Your task to perform on an android device: turn on location history Image 0: 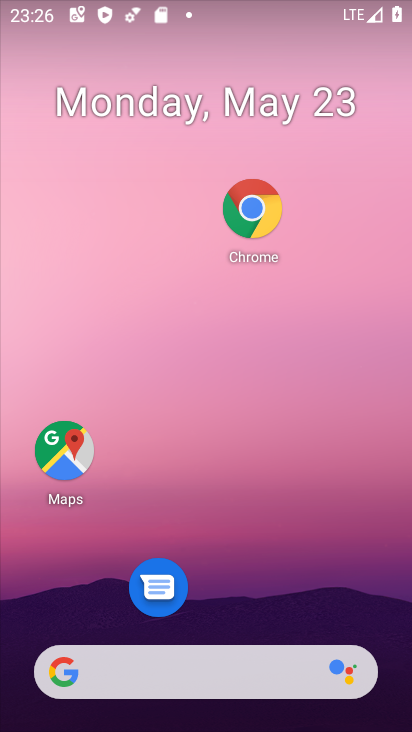
Step 0: drag from (308, 693) to (244, 214)
Your task to perform on an android device: turn on location history Image 1: 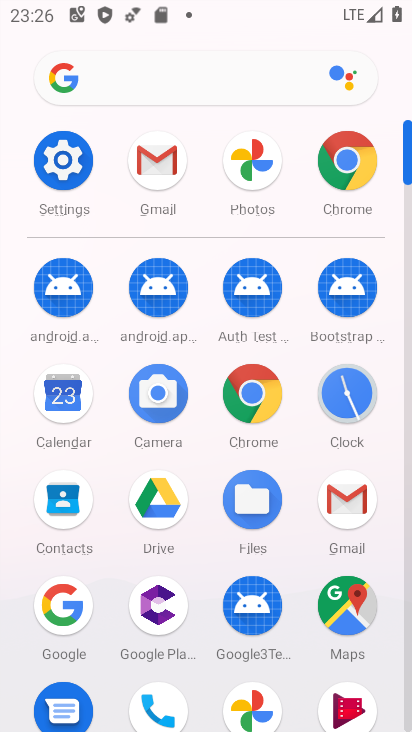
Step 1: click (357, 598)
Your task to perform on an android device: turn on location history Image 2: 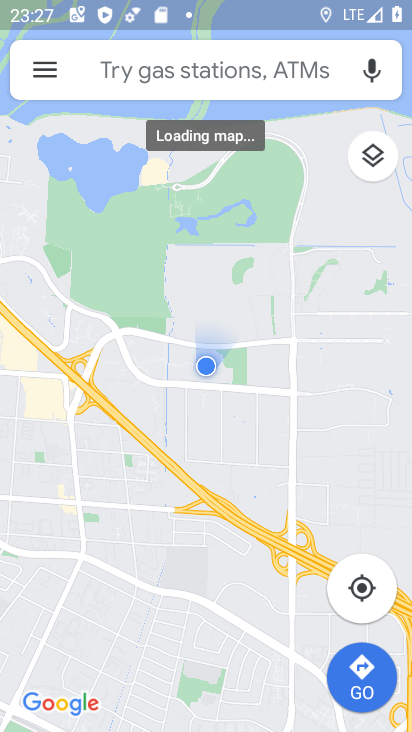
Step 2: drag from (37, 67) to (77, 405)
Your task to perform on an android device: turn on location history Image 3: 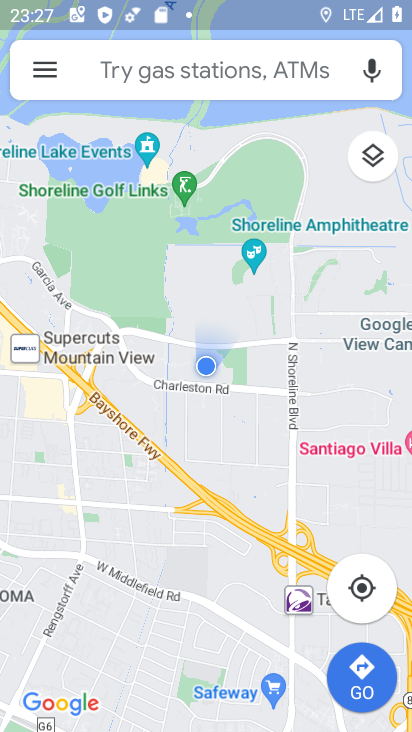
Step 3: click (38, 67)
Your task to perform on an android device: turn on location history Image 4: 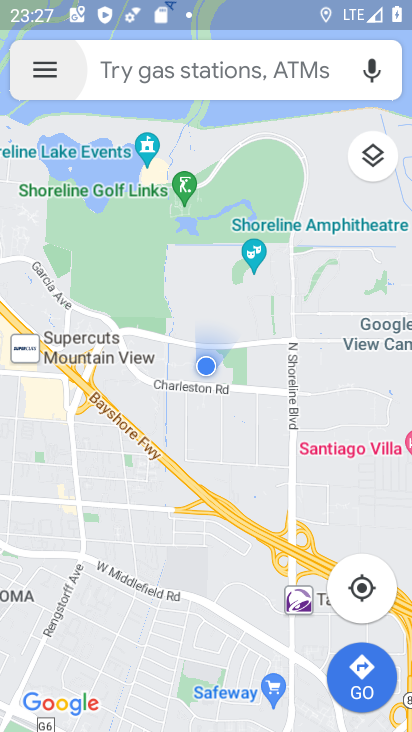
Step 4: drag from (40, 67) to (2, 323)
Your task to perform on an android device: turn on location history Image 5: 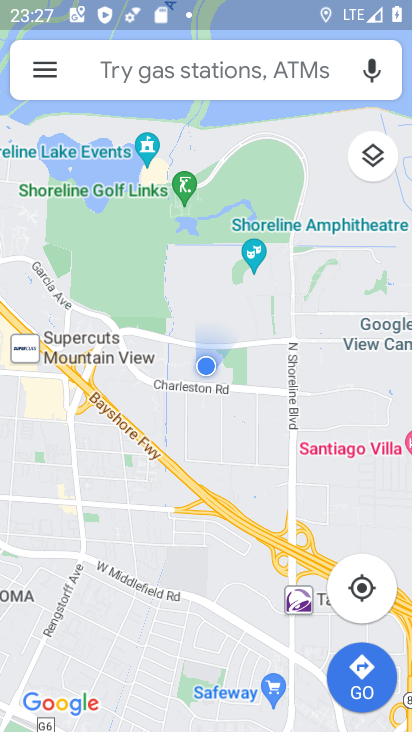
Step 5: click (15, 312)
Your task to perform on an android device: turn on location history Image 6: 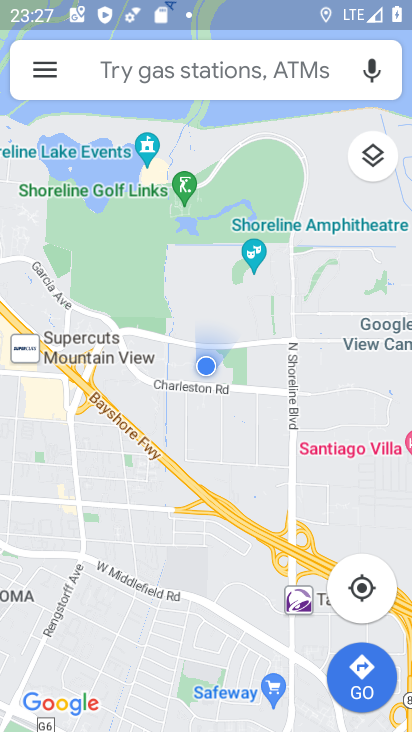
Step 6: click (48, 86)
Your task to perform on an android device: turn on location history Image 7: 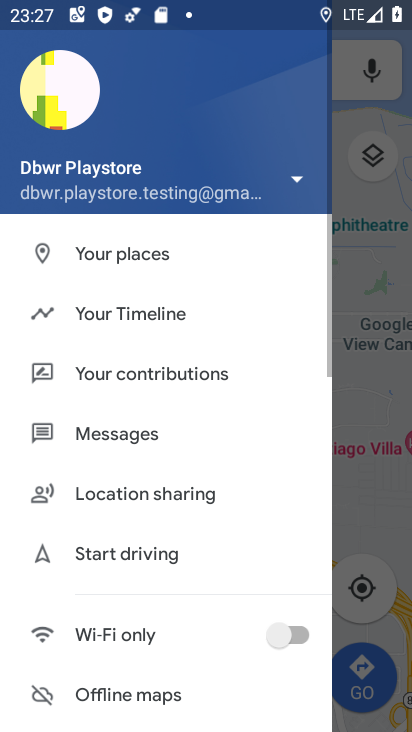
Step 7: click (117, 325)
Your task to perform on an android device: turn on location history Image 8: 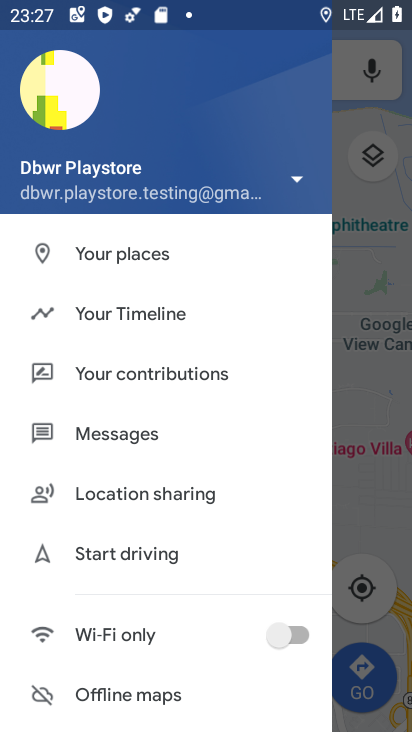
Step 8: click (124, 318)
Your task to perform on an android device: turn on location history Image 9: 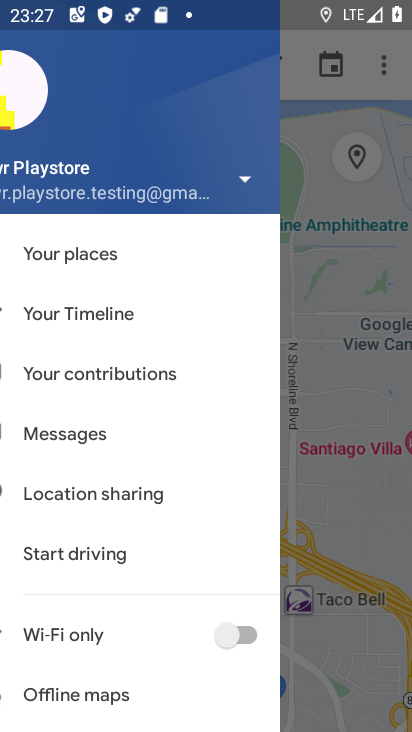
Step 9: click (125, 319)
Your task to perform on an android device: turn on location history Image 10: 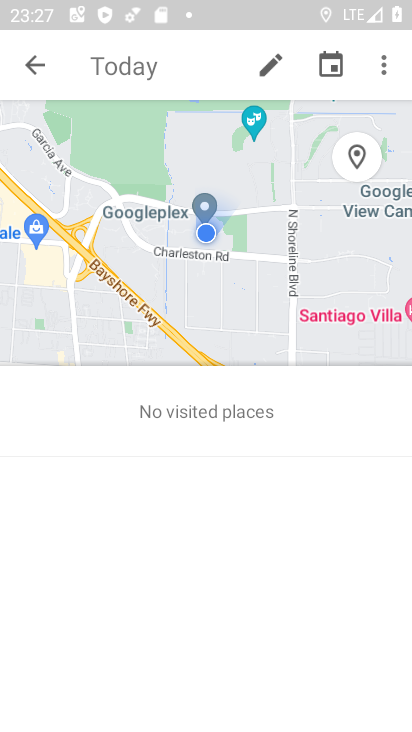
Step 10: click (34, 61)
Your task to perform on an android device: turn on location history Image 11: 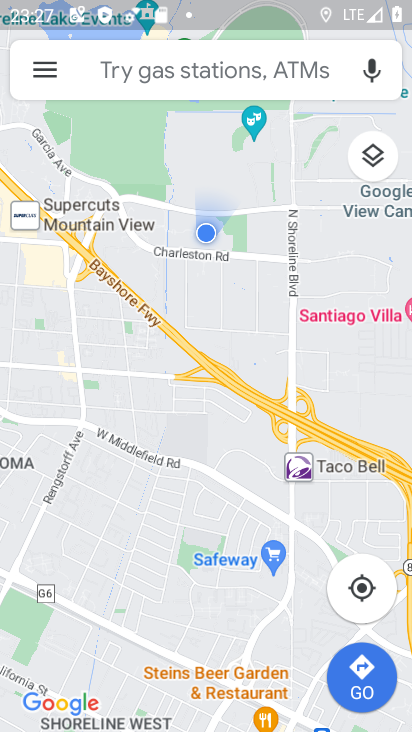
Step 11: click (44, 72)
Your task to perform on an android device: turn on location history Image 12: 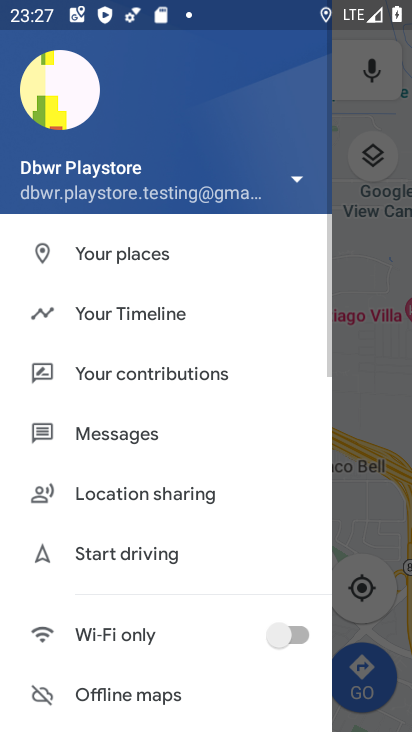
Step 12: click (149, 308)
Your task to perform on an android device: turn on location history Image 13: 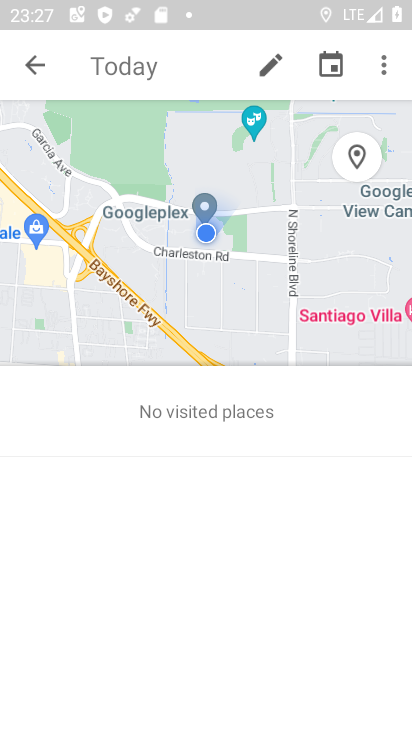
Step 13: drag from (384, 74) to (234, 425)
Your task to perform on an android device: turn on location history Image 14: 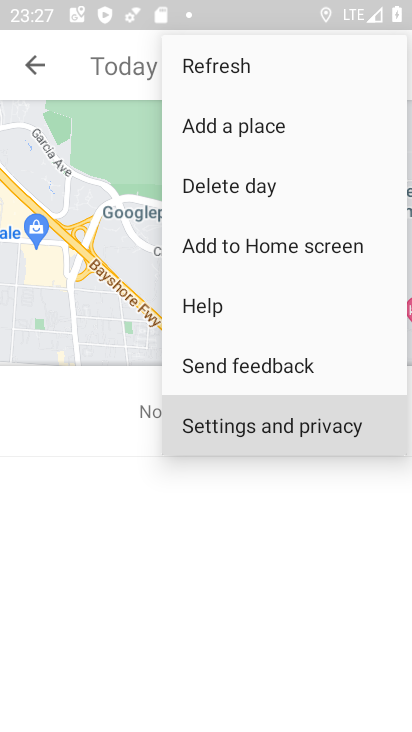
Step 14: click (241, 418)
Your task to perform on an android device: turn on location history Image 15: 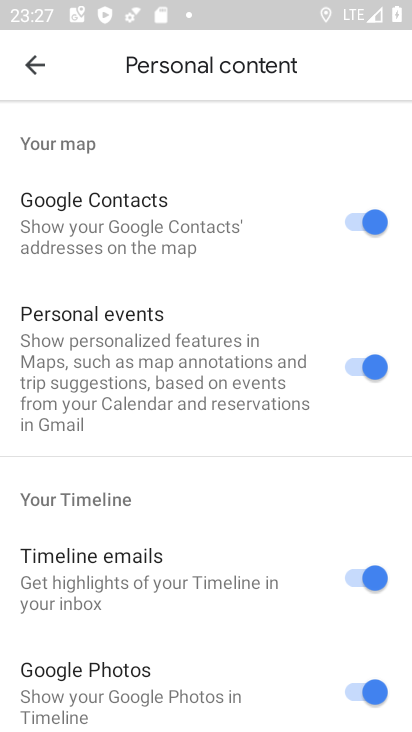
Step 15: task complete